Your task to perform on an android device: Open privacy settings Image 0: 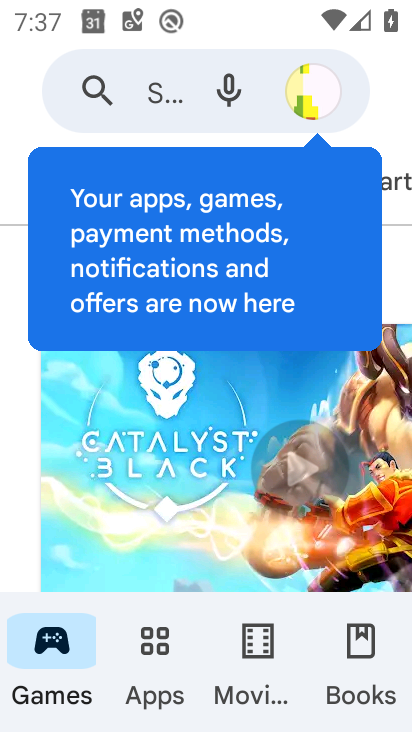
Step 0: press home button
Your task to perform on an android device: Open privacy settings Image 1: 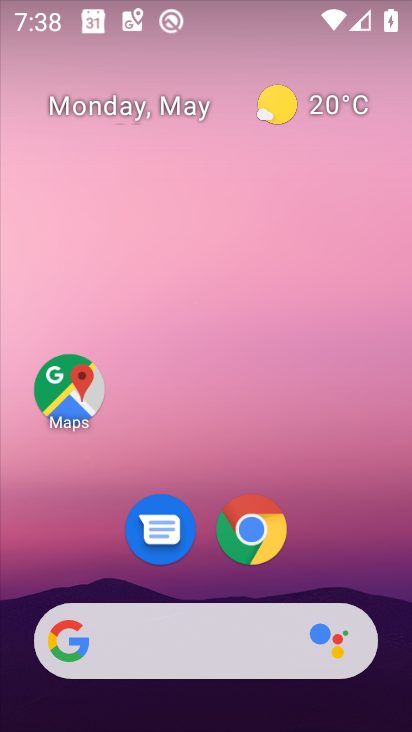
Step 1: drag from (65, 460) to (198, 90)
Your task to perform on an android device: Open privacy settings Image 2: 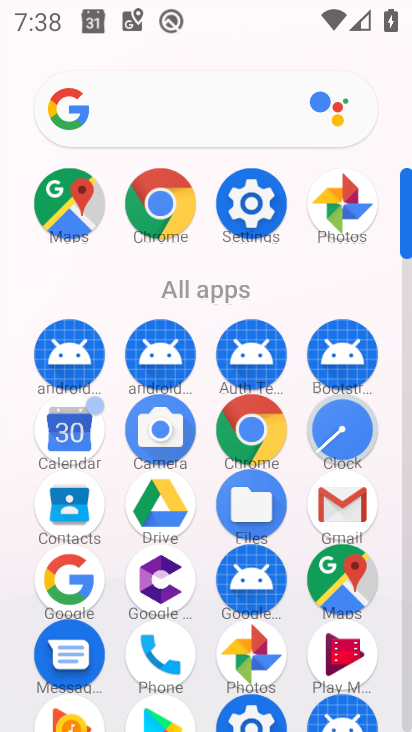
Step 2: click (253, 205)
Your task to perform on an android device: Open privacy settings Image 3: 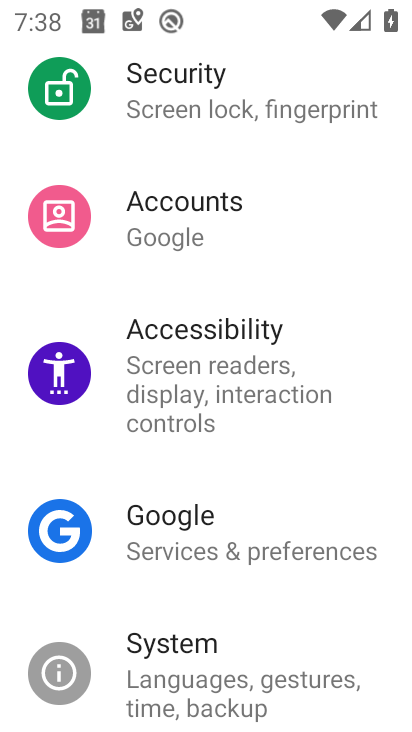
Step 3: drag from (169, 166) to (97, 613)
Your task to perform on an android device: Open privacy settings Image 4: 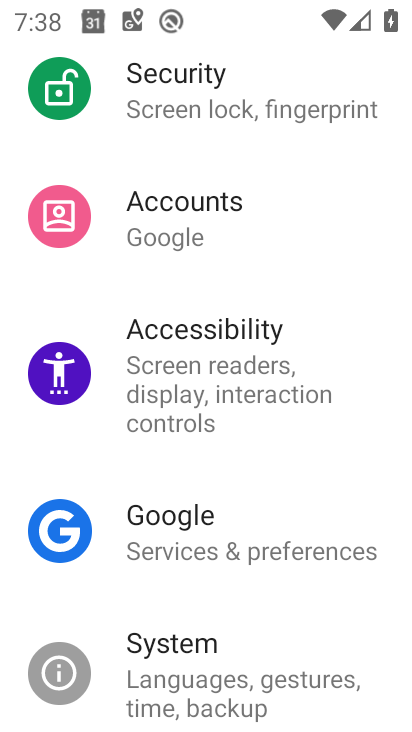
Step 4: drag from (107, 120) to (29, 522)
Your task to perform on an android device: Open privacy settings Image 5: 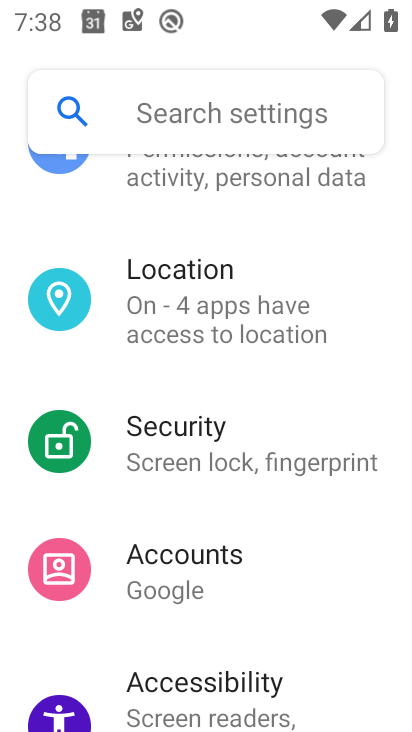
Step 5: drag from (67, 174) to (73, 606)
Your task to perform on an android device: Open privacy settings Image 6: 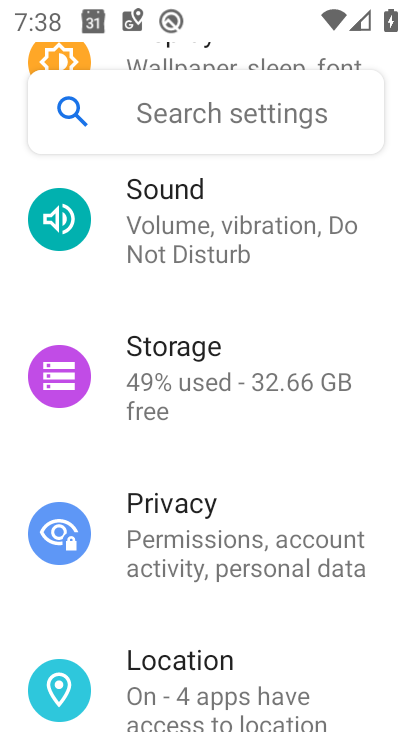
Step 6: click (87, 531)
Your task to perform on an android device: Open privacy settings Image 7: 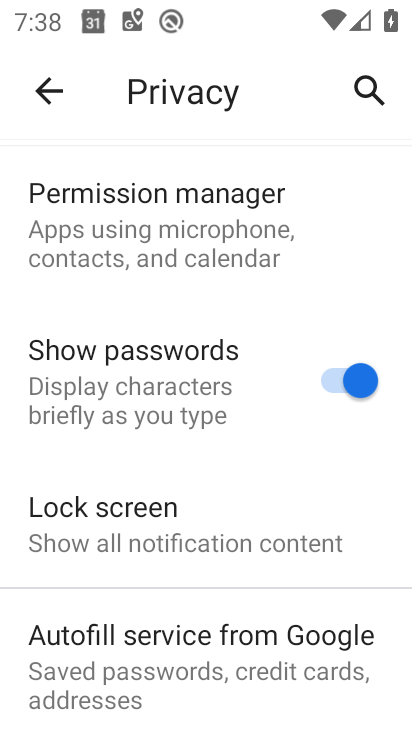
Step 7: task complete